Your task to perform on an android device: Open sound settings Image 0: 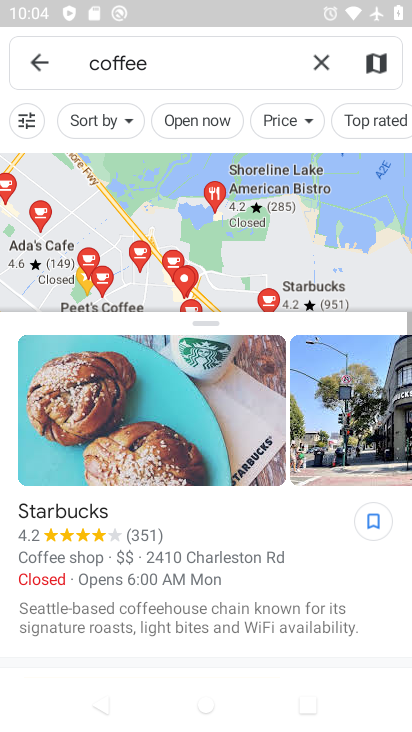
Step 0: click (171, 13)
Your task to perform on an android device: Open sound settings Image 1: 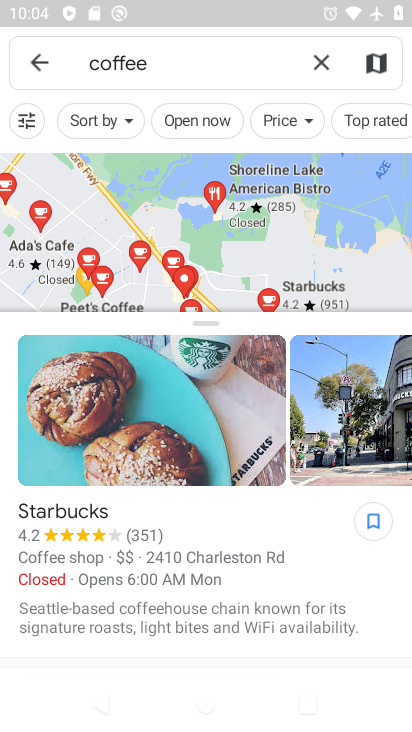
Step 1: press back button
Your task to perform on an android device: Open sound settings Image 2: 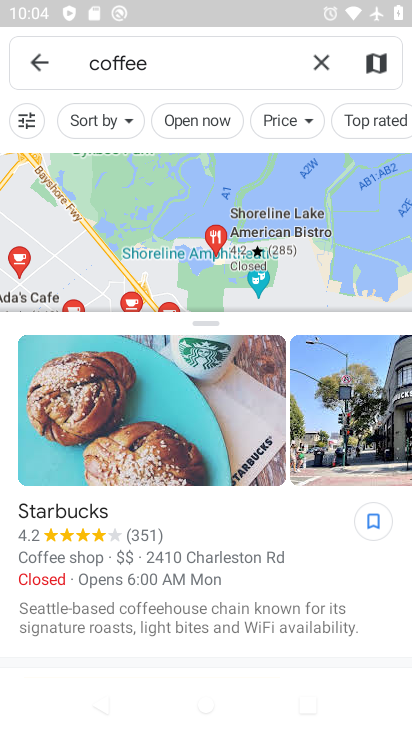
Step 2: press back button
Your task to perform on an android device: Open sound settings Image 3: 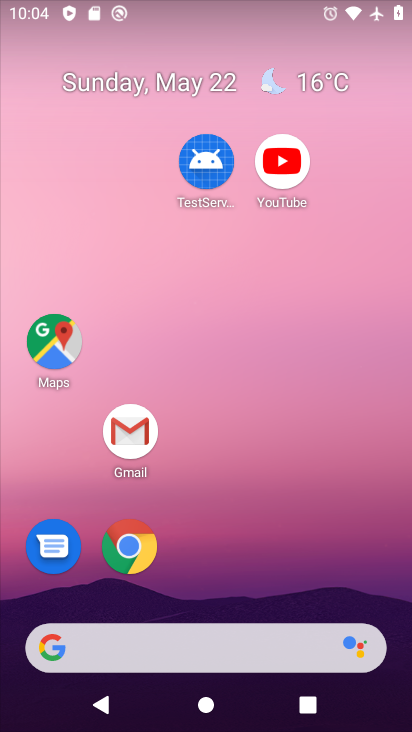
Step 3: drag from (239, 488) to (164, 7)
Your task to perform on an android device: Open sound settings Image 4: 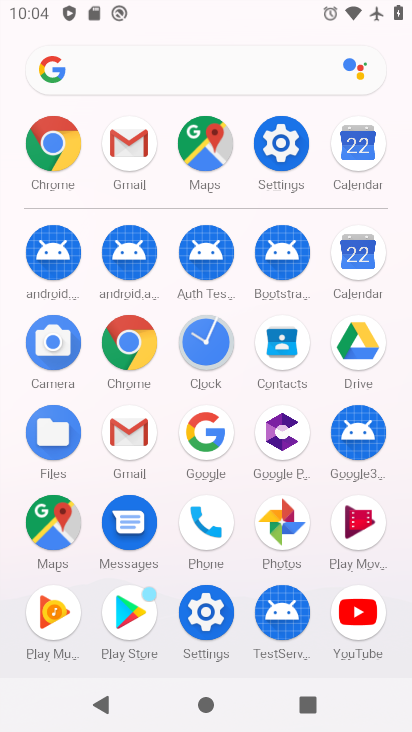
Step 4: click (275, 149)
Your task to perform on an android device: Open sound settings Image 5: 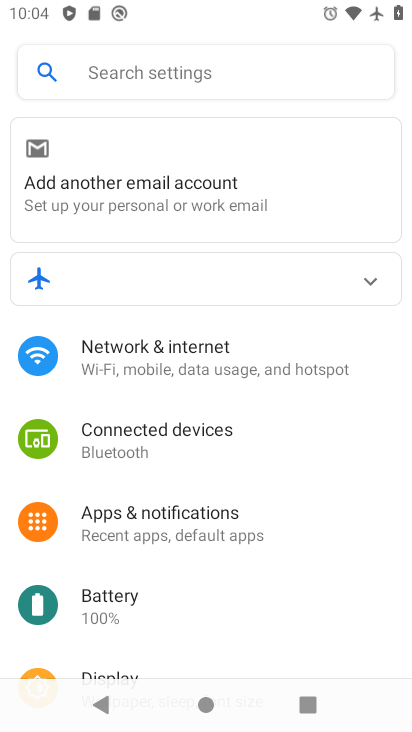
Step 5: drag from (195, 540) to (184, 172)
Your task to perform on an android device: Open sound settings Image 6: 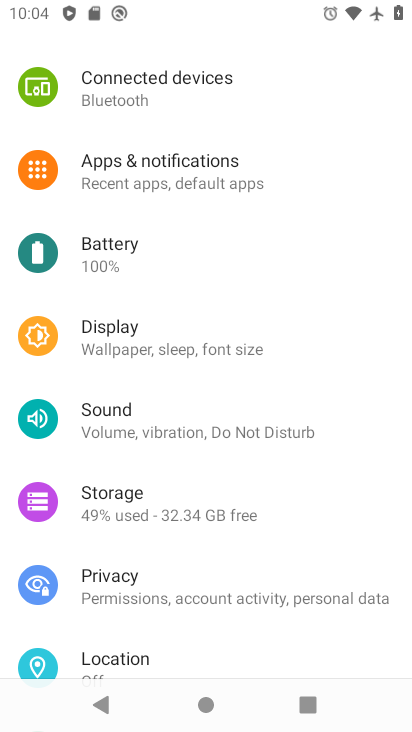
Step 6: drag from (192, 511) to (189, 144)
Your task to perform on an android device: Open sound settings Image 7: 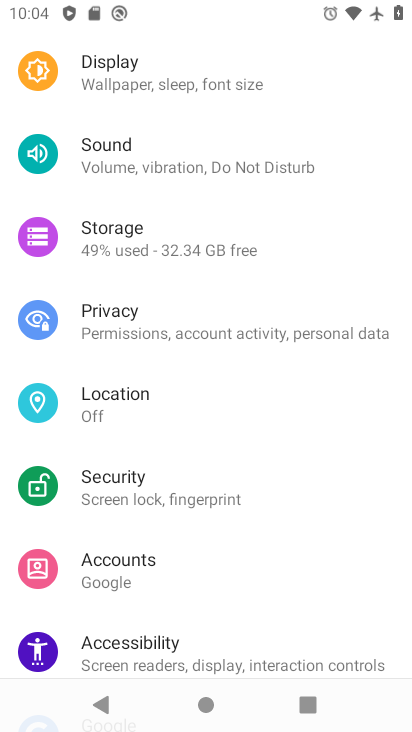
Step 7: click (111, 154)
Your task to perform on an android device: Open sound settings Image 8: 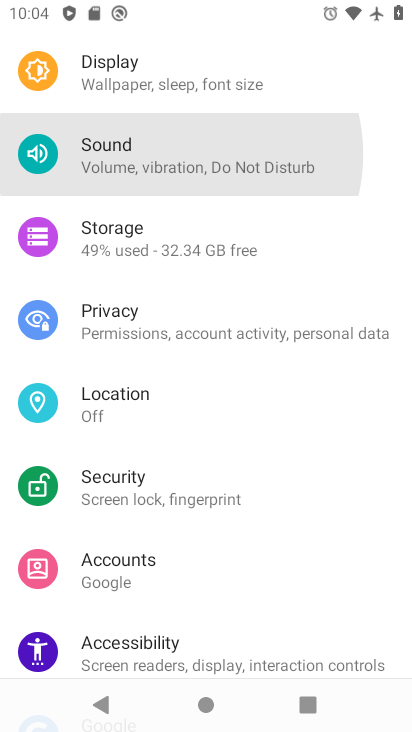
Step 8: click (111, 154)
Your task to perform on an android device: Open sound settings Image 9: 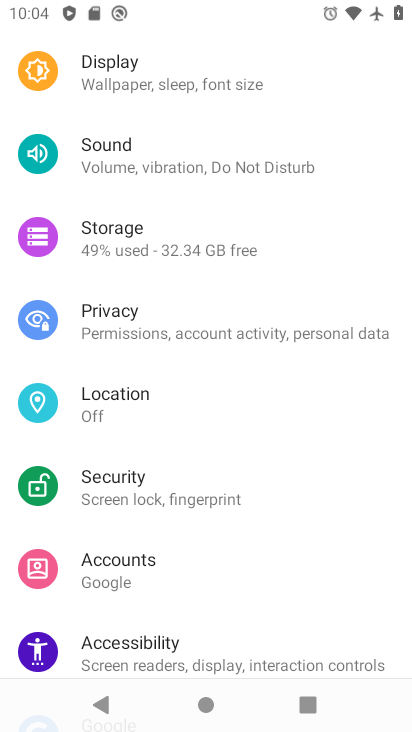
Step 9: click (112, 155)
Your task to perform on an android device: Open sound settings Image 10: 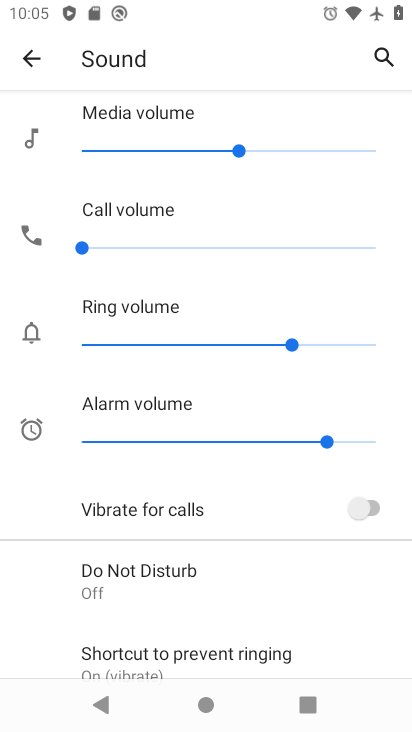
Step 10: task complete